Your task to perform on an android device: change the clock display to analog Image 0: 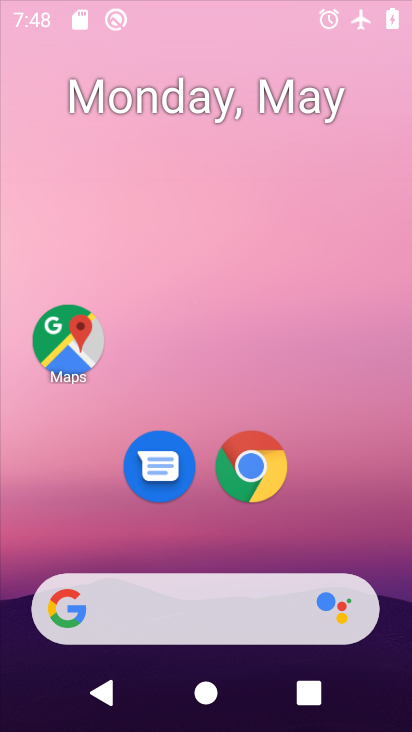
Step 0: click (270, 284)
Your task to perform on an android device: change the clock display to analog Image 1: 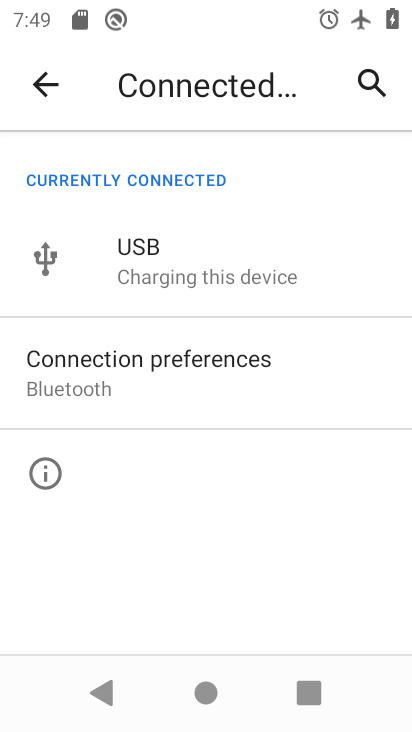
Step 1: press back button
Your task to perform on an android device: change the clock display to analog Image 2: 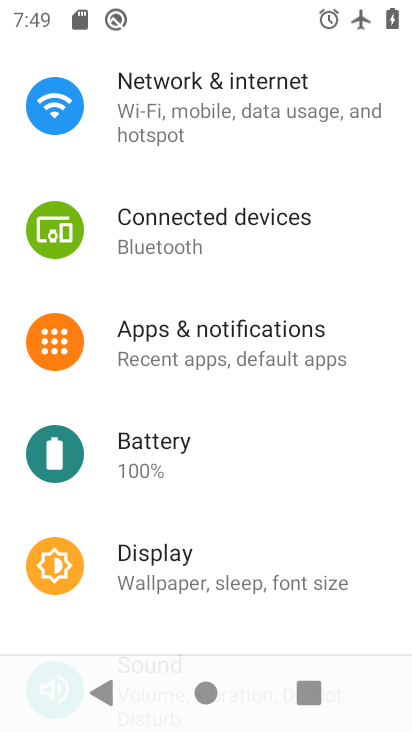
Step 2: press home button
Your task to perform on an android device: change the clock display to analog Image 3: 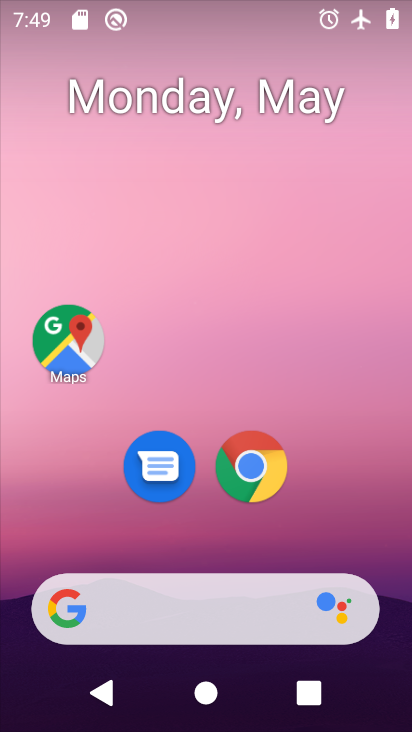
Step 3: drag from (248, 672) to (202, 173)
Your task to perform on an android device: change the clock display to analog Image 4: 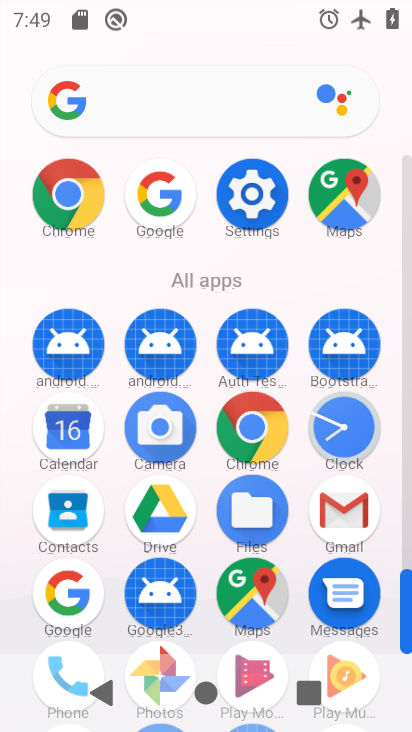
Step 4: click (325, 410)
Your task to perform on an android device: change the clock display to analog Image 5: 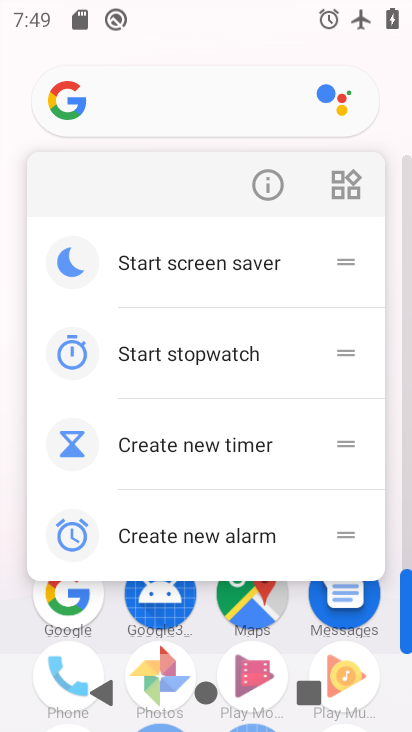
Step 5: click (152, 353)
Your task to perform on an android device: change the clock display to analog Image 6: 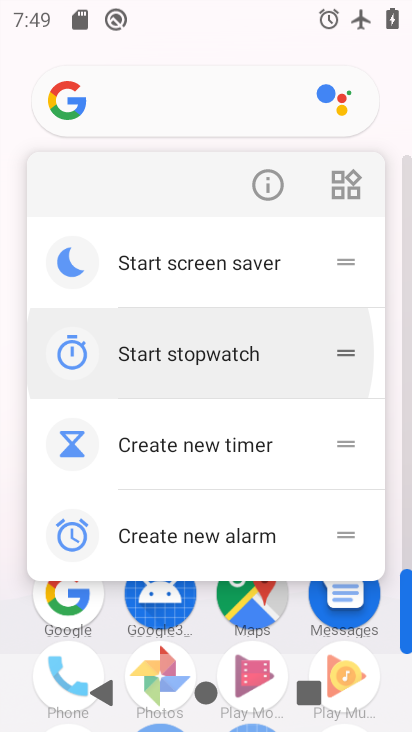
Step 6: click (153, 353)
Your task to perform on an android device: change the clock display to analog Image 7: 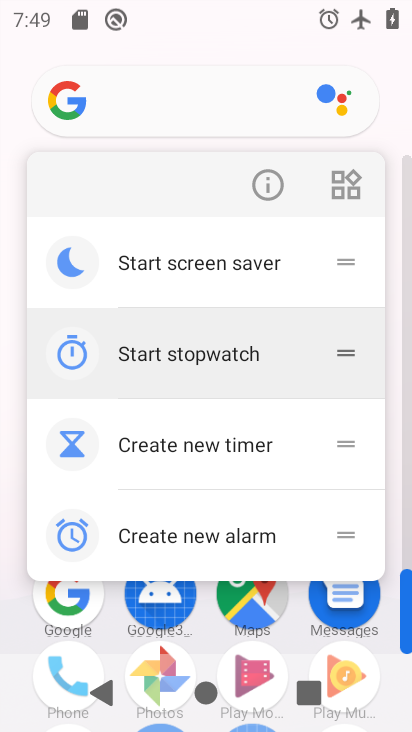
Step 7: click (154, 352)
Your task to perform on an android device: change the clock display to analog Image 8: 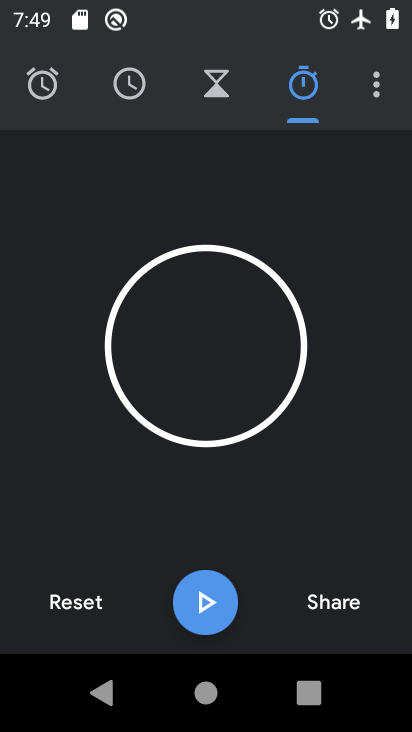
Step 8: click (363, 85)
Your task to perform on an android device: change the clock display to analog Image 9: 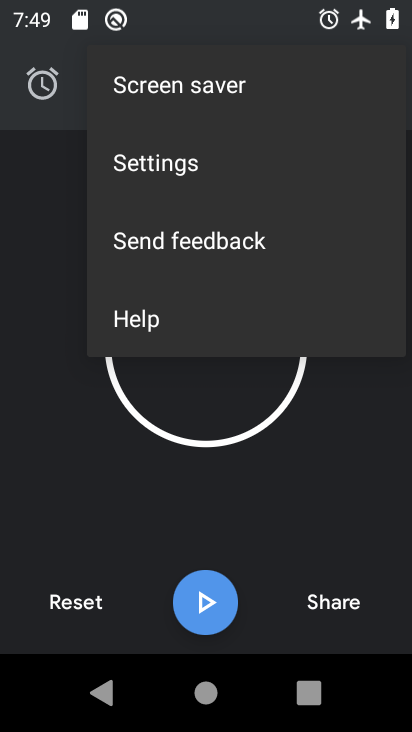
Step 9: click (154, 172)
Your task to perform on an android device: change the clock display to analog Image 10: 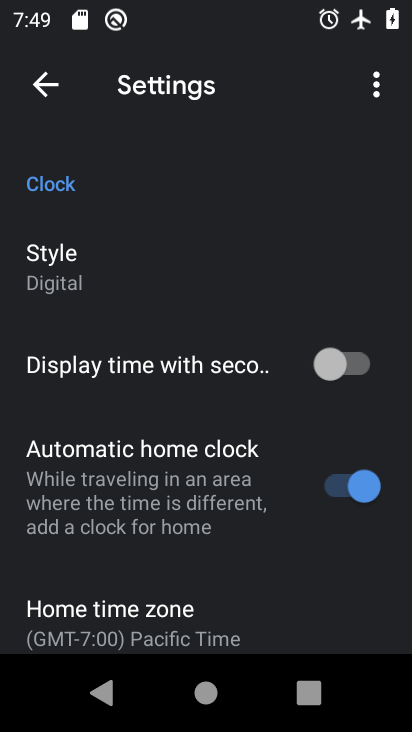
Step 10: click (104, 239)
Your task to perform on an android device: change the clock display to analog Image 11: 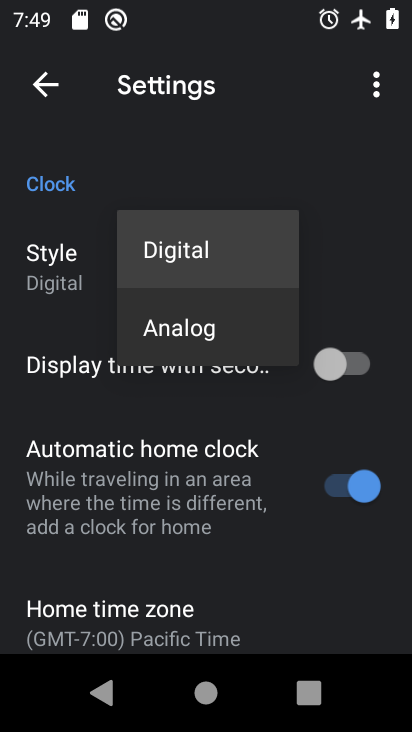
Step 11: click (151, 325)
Your task to perform on an android device: change the clock display to analog Image 12: 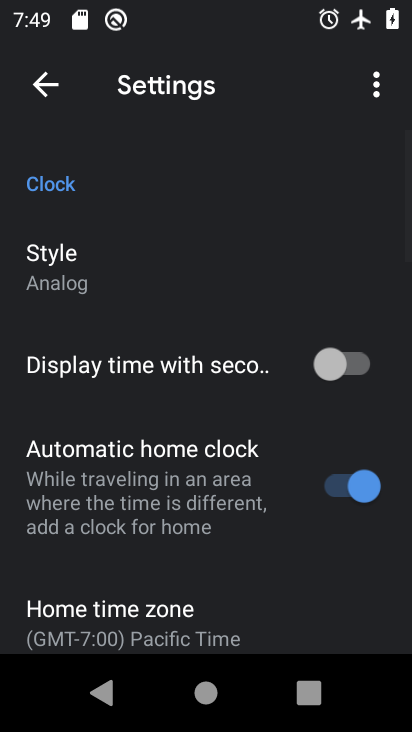
Step 12: task complete